Your task to perform on an android device: Search for pizza restaurants on Maps Image 0: 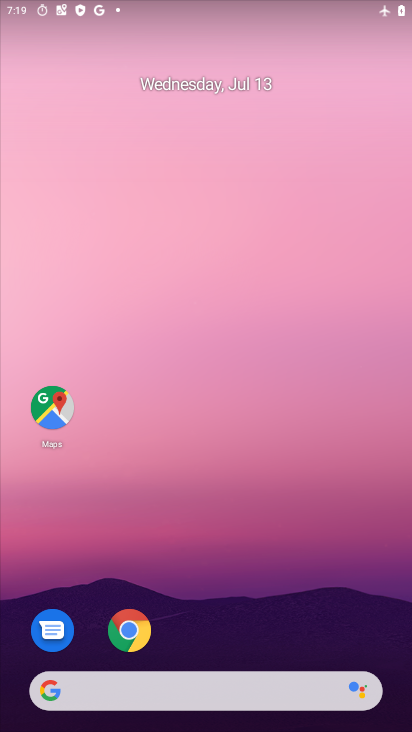
Step 0: drag from (245, 585) to (165, 23)
Your task to perform on an android device: Search for pizza restaurants on Maps Image 1: 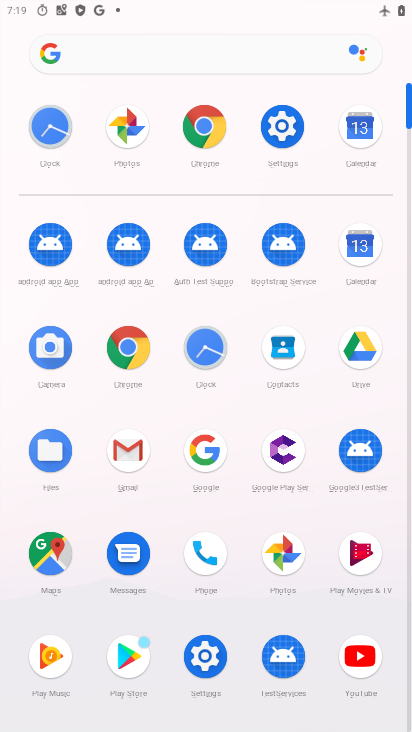
Step 1: click (46, 553)
Your task to perform on an android device: Search for pizza restaurants on Maps Image 2: 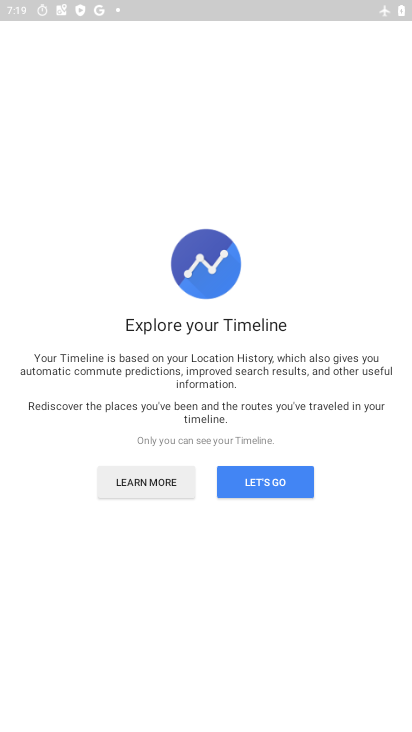
Step 2: press back button
Your task to perform on an android device: Search for pizza restaurants on Maps Image 3: 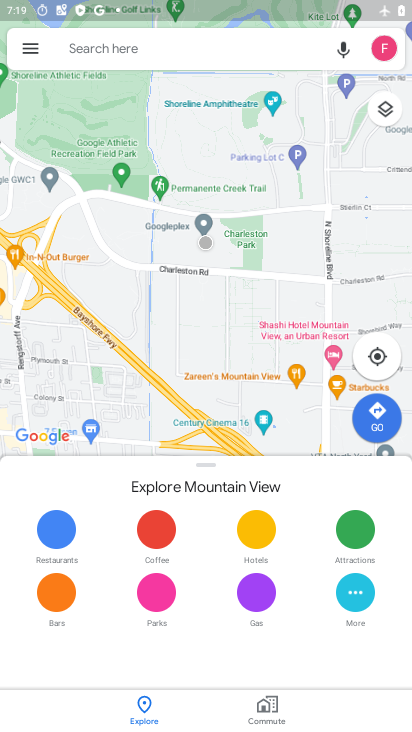
Step 3: click (180, 43)
Your task to perform on an android device: Search for pizza restaurants on Maps Image 4: 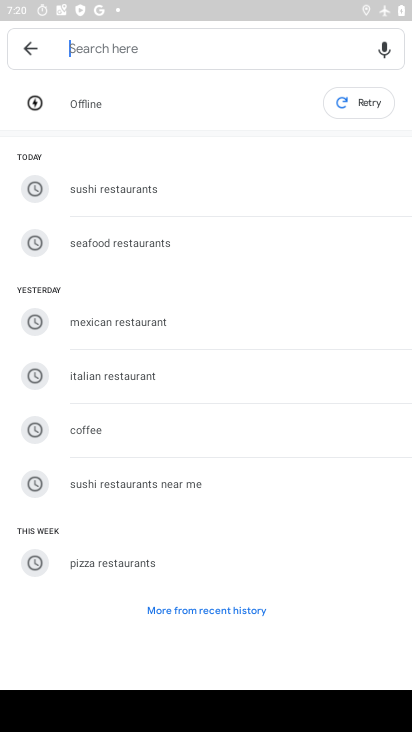
Step 4: click (130, 568)
Your task to perform on an android device: Search for pizza restaurants on Maps Image 5: 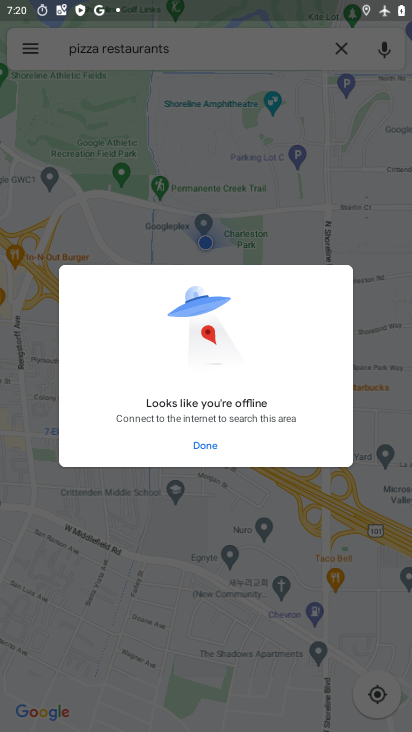
Step 5: task complete